Your task to perform on an android device: turn on translation in the chrome app Image 0: 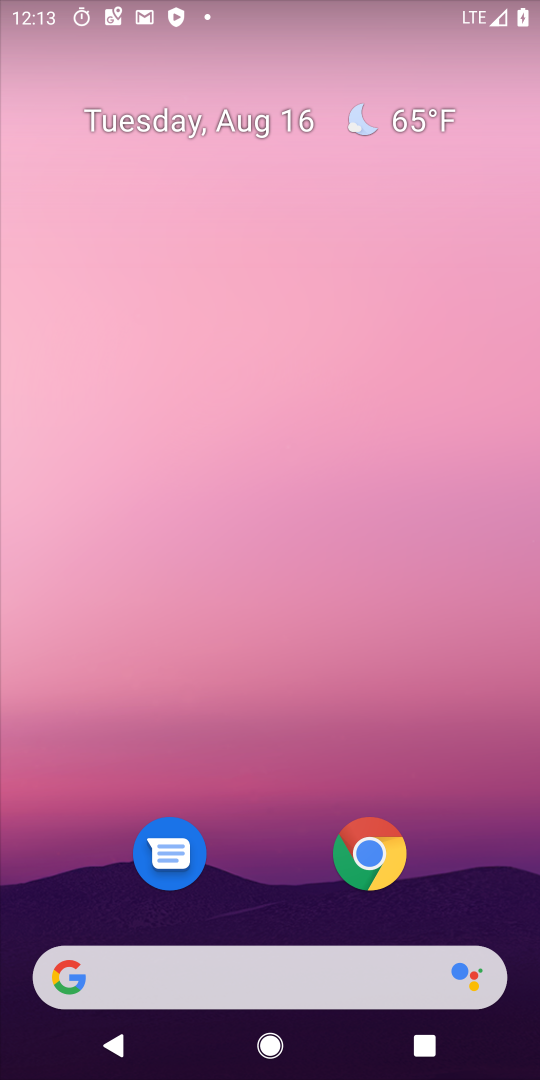
Step 0: click (356, 858)
Your task to perform on an android device: turn on translation in the chrome app Image 1: 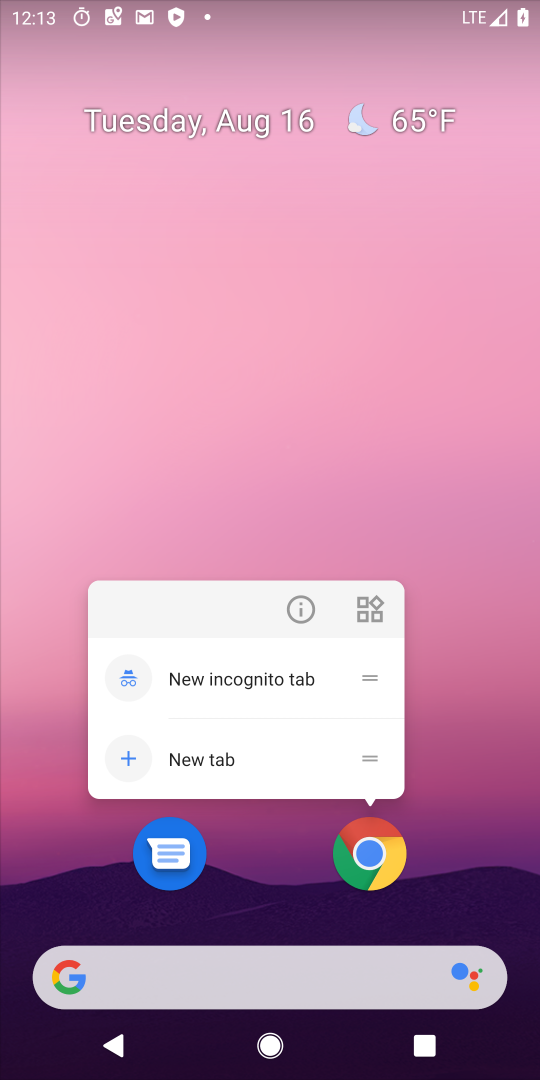
Step 1: click (361, 860)
Your task to perform on an android device: turn on translation in the chrome app Image 2: 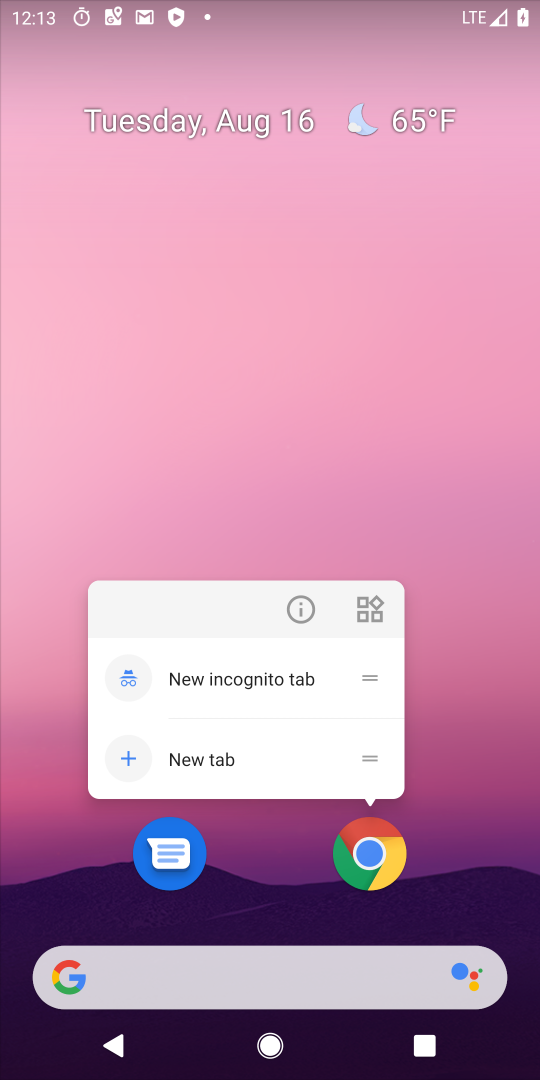
Step 2: click (370, 848)
Your task to perform on an android device: turn on translation in the chrome app Image 3: 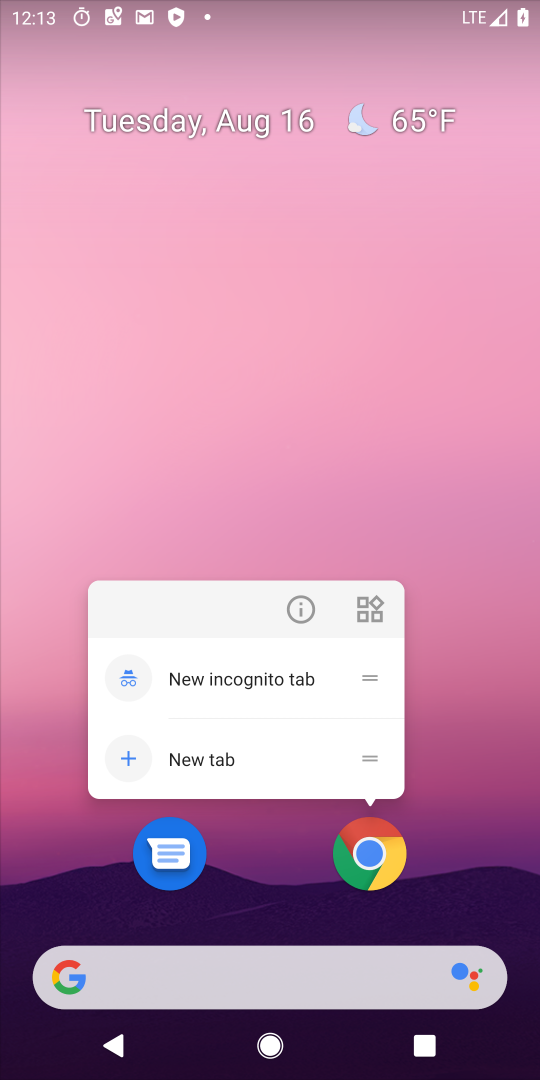
Step 3: click (370, 848)
Your task to perform on an android device: turn on translation in the chrome app Image 4: 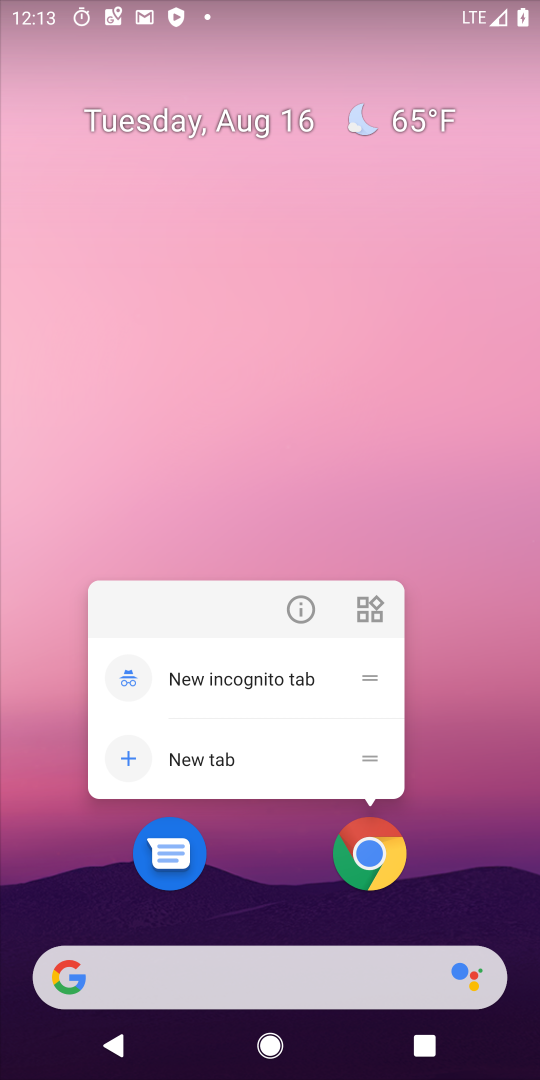
Step 4: click (380, 862)
Your task to perform on an android device: turn on translation in the chrome app Image 5: 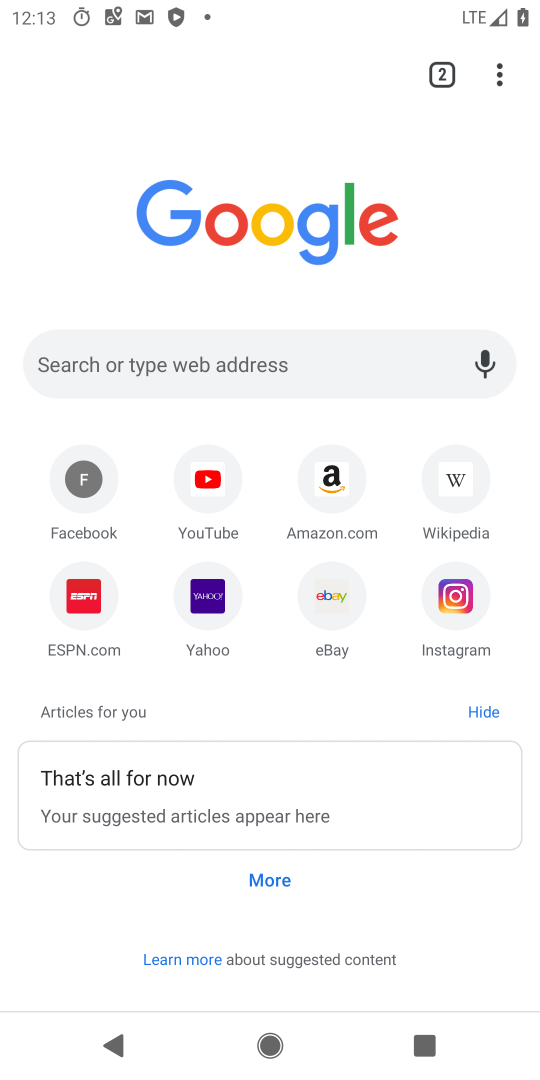
Step 5: click (500, 75)
Your task to perform on an android device: turn on translation in the chrome app Image 6: 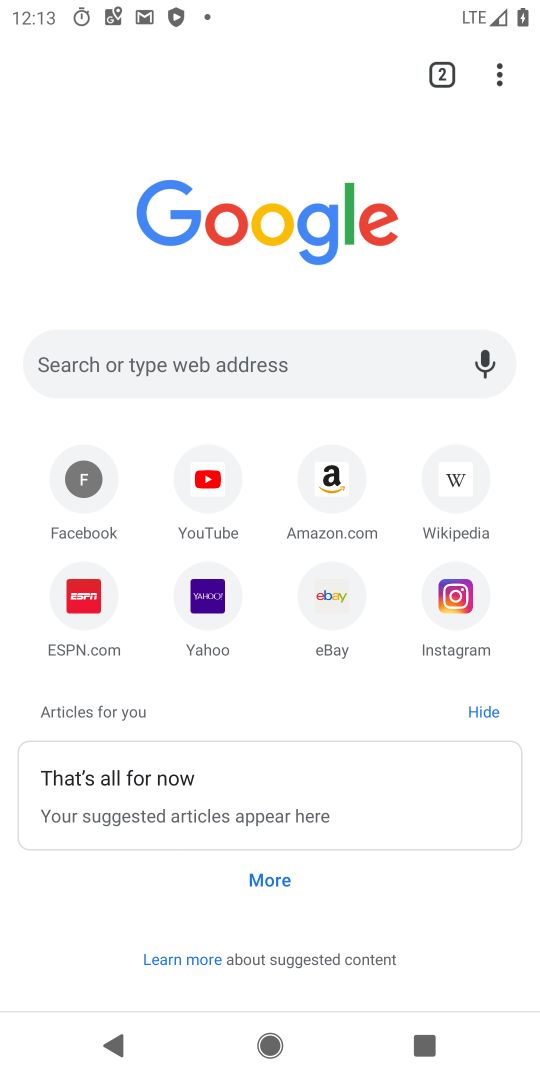
Step 6: click (489, 72)
Your task to perform on an android device: turn on translation in the chrome app Image 7: 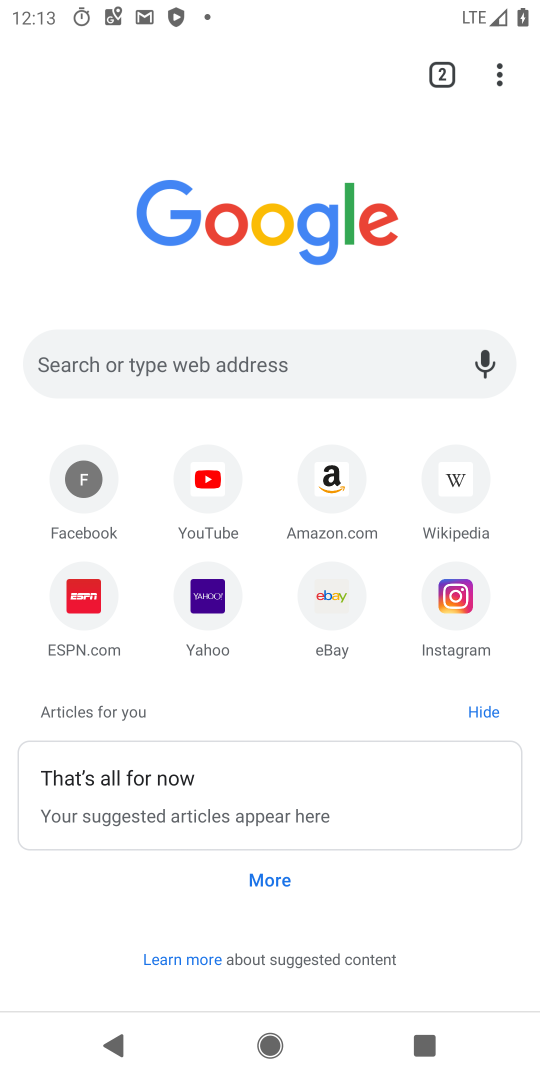
Step 7: click (490, 72)
Your task to perform on an android device: turn on translation in the chrome app Image 8: 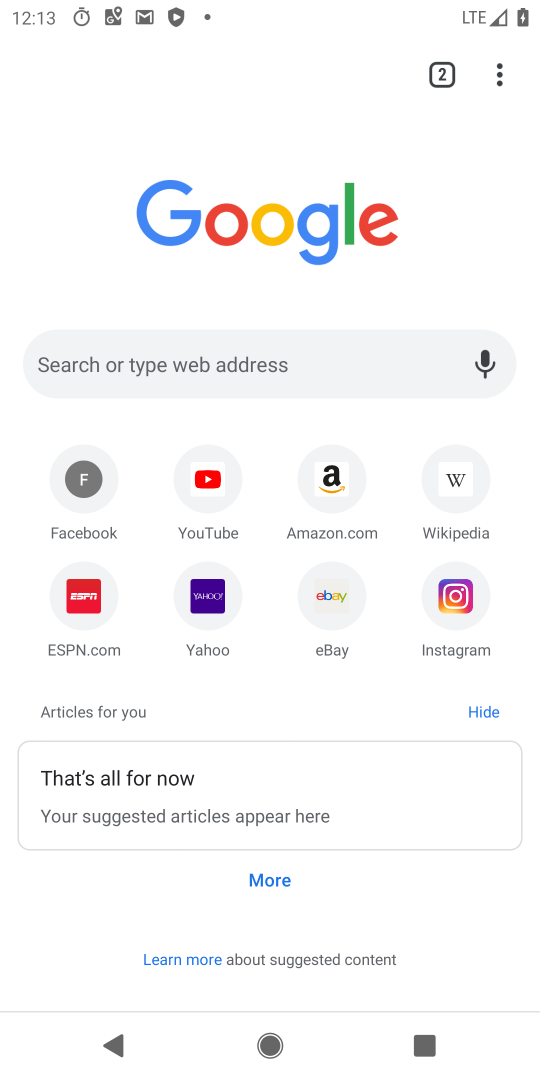
Step 8: click (498, 77)
Your task to perform on an android device: turn on translation in the chrome app Image 9: 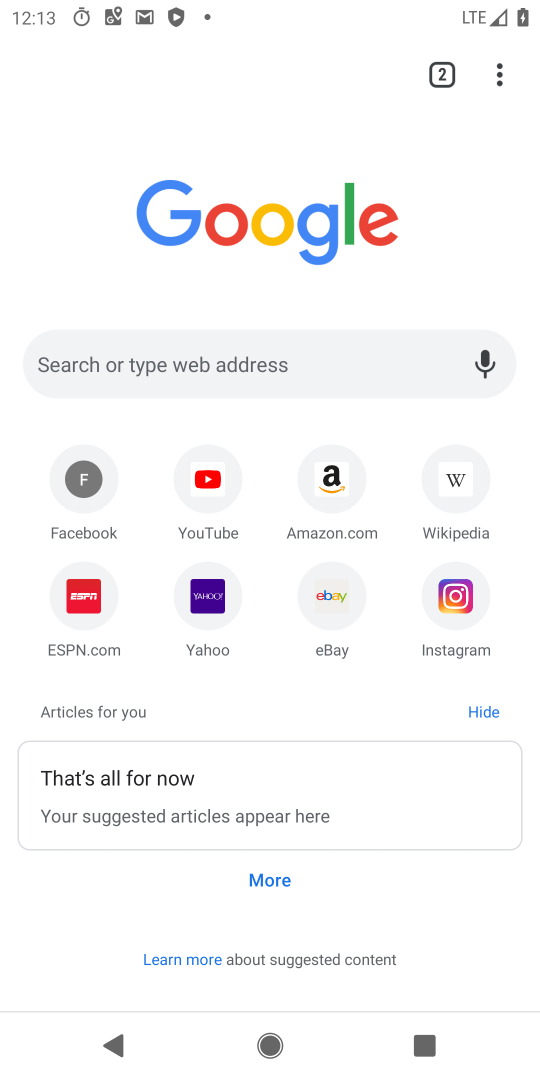
Step 9: click (503, 68)
Your task to perform on an android device: turn on translation in the chrome app Image 10: 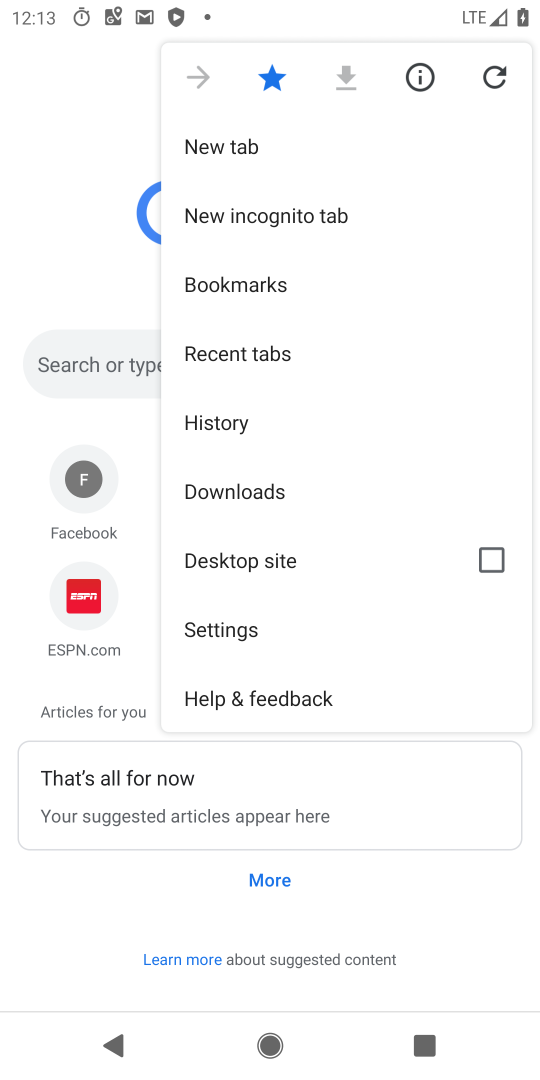
Step 10: click (222, 632)
Your task to perform on an android device: turn on translation in the chrome app Image 11: 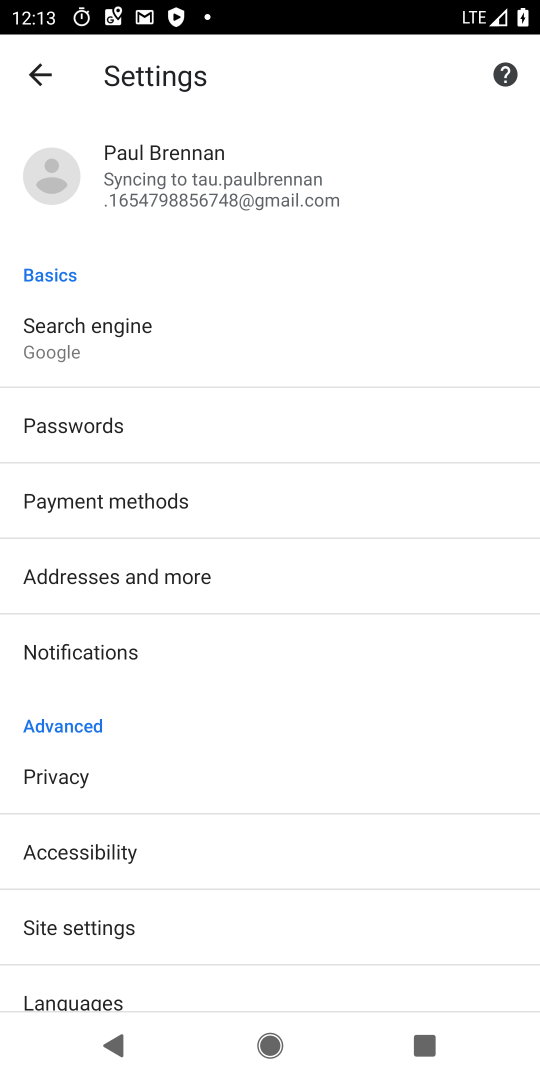
Step 11: click (100, 1003)
Your task to perform on an android device: turn on translation in the chrome app Image 12: 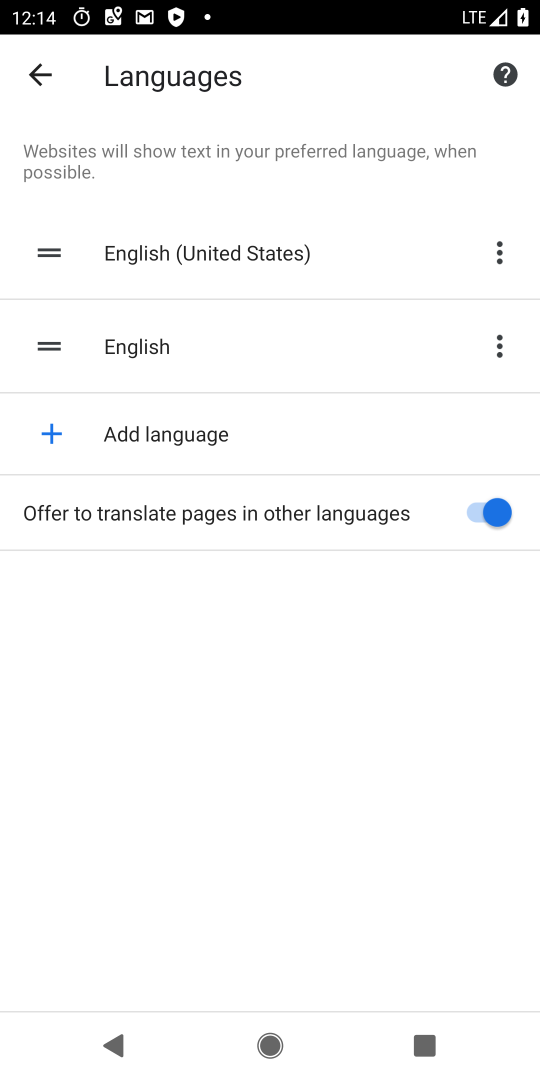
Step 12: task complete